Your task to perform on an android device: Open Chrome and go to settings Image 0: 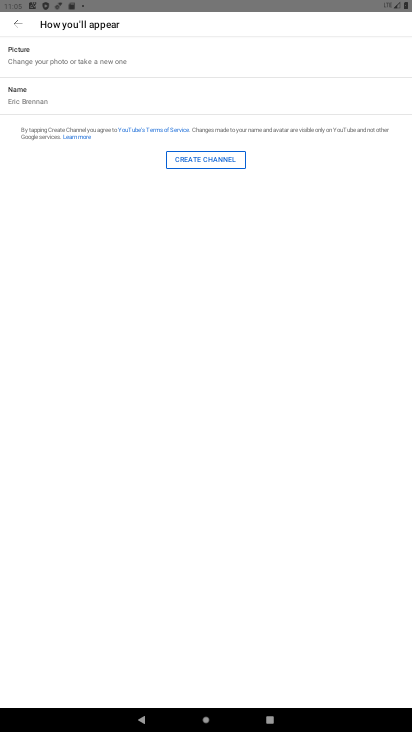
Step 0: drag from (176, 672) to (278, 104)
Your task to perform on an android device: Open Chrome and go to settings Image 1: 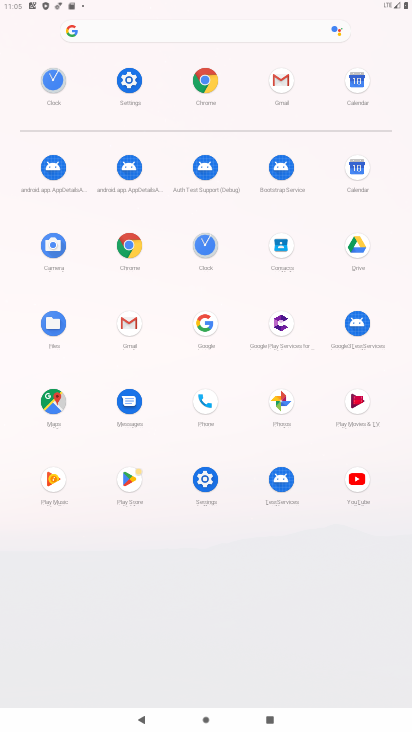
Step 1: click (202, 84)
Your task to perform on an android device: Open Chrome and go to settings Image 2: 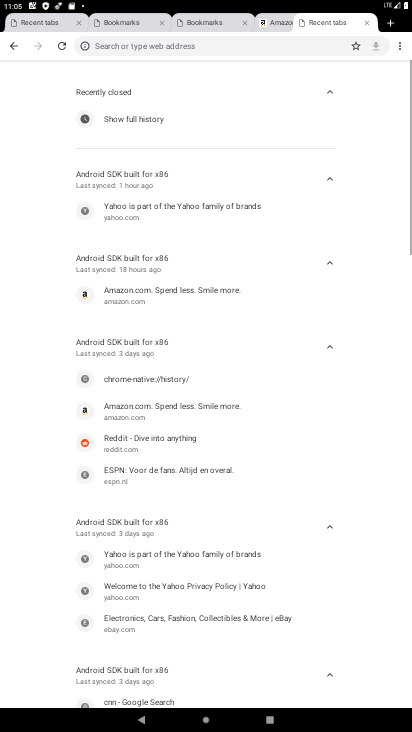
Step 2: click (400, 48)
Your task to perform on an android device: Open Chrome and go to settings Image 3: 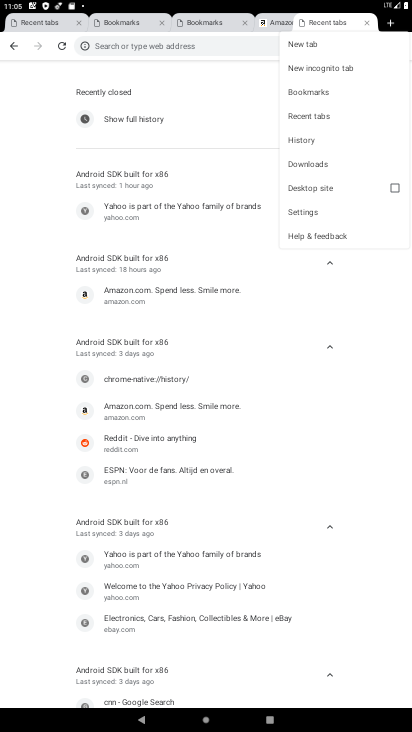
Step 3: click (313, 215)
Your task to perform on an android device: Open Chrome and go to settings Image 4: 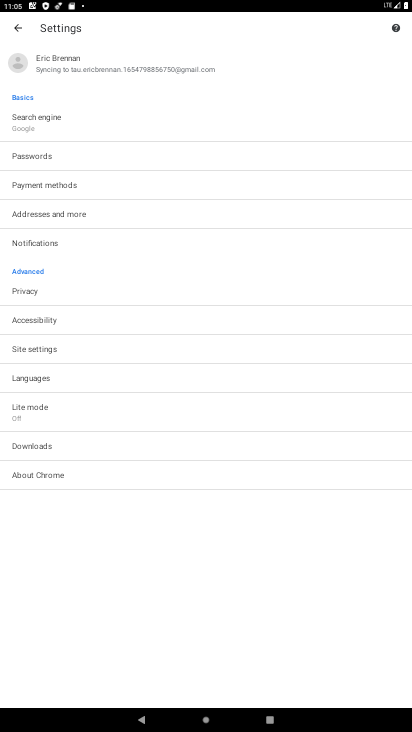
Step 4: task complete